Your task to perform on an android device: uninstall "Adobe Acrobat Reader" Image 0: 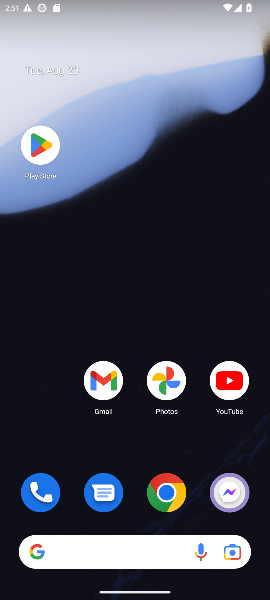
Step 0: click (24, 168)
Your task to perform on an android device: uninstall "Adobe Acrobat Reader" Image 1: 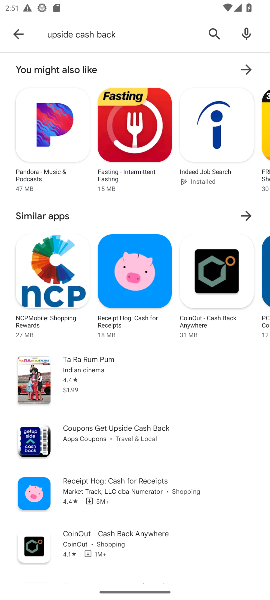
Step 1: press home button
Your task to perform on an android device: uninstall "Adobe Acrobat Reader" Image 2: 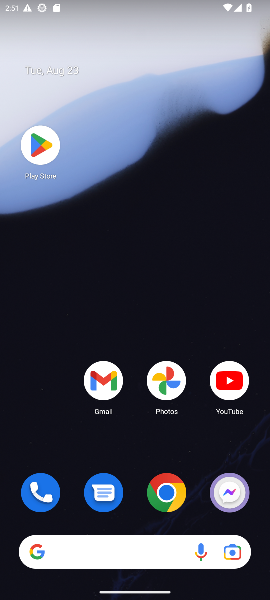
Step 2: drag from (187, 461) to (169, 1)
Your task to perform on an android device: uninstall "Adobe Acrobat Reader" Image 3: 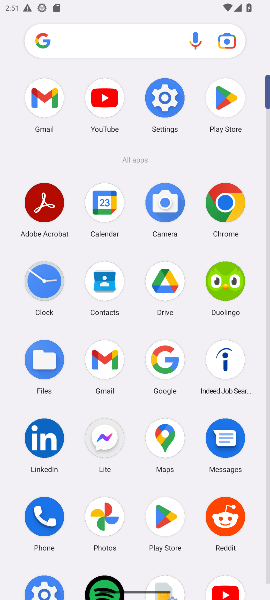
Step 3: click (32, 217)
Your task to perform on an android device: uninstall "Adobe Acrobat Reader" Image 4: 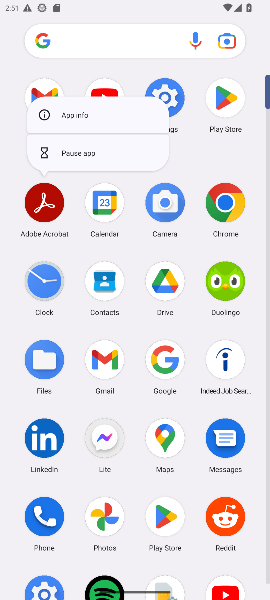
Step 4: click (79, 111)
Your task to perform on an android device: uninstall "Adobe Acrobat Reader" Image 5: 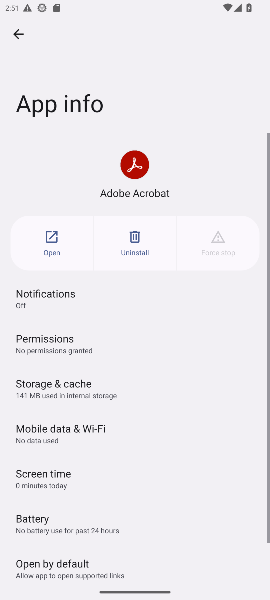
Step 5: click (136, 234)
Your task to perform on an android device: uninstall "Adobe Acrobat Reader" Image 6: 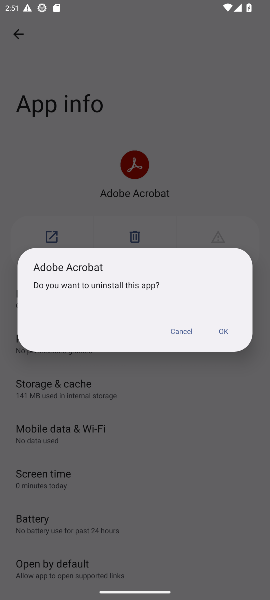
Step 6: click (227, 338)
Your task to perform on an android device: uninstall "Adobe Acrobat Reader" Image 7: 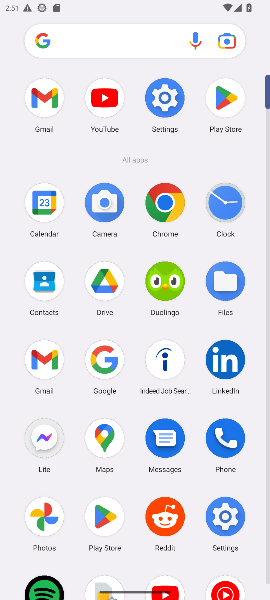
Step 7: task complete